Your task to perform on an android device: set an alarm Image 0: 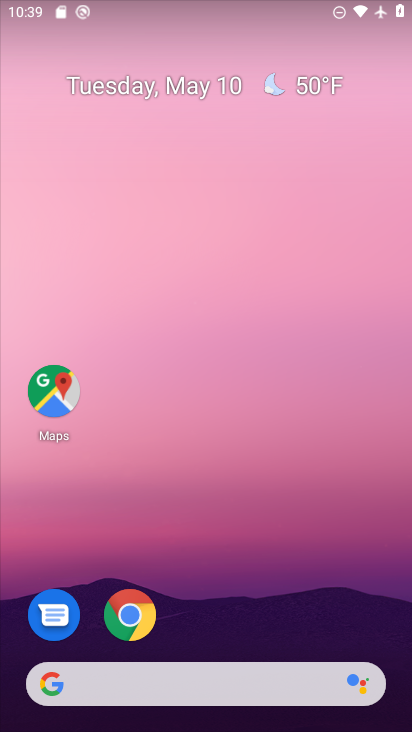
Step 0: drag from (385, 634) to (288, 80)
Your task to perform on an android device: set an alarm Image 1: 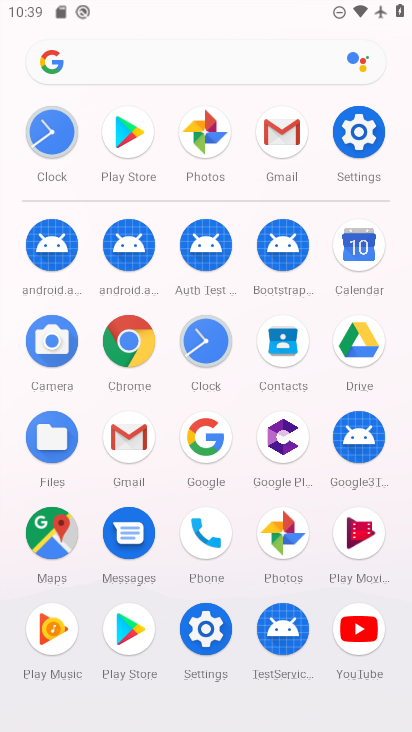
Step 1: click (208, 344)
Your task to perform on an android device: set an alarm Image 2: 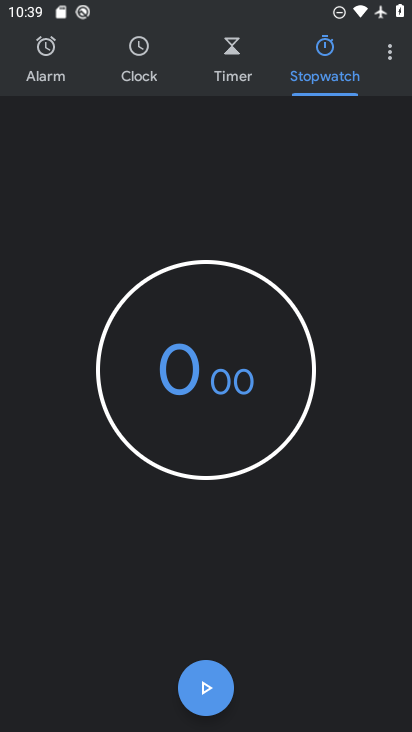
Step 2: click (46, 50)
Your task to perform on an android device: set an alarm Image 3: 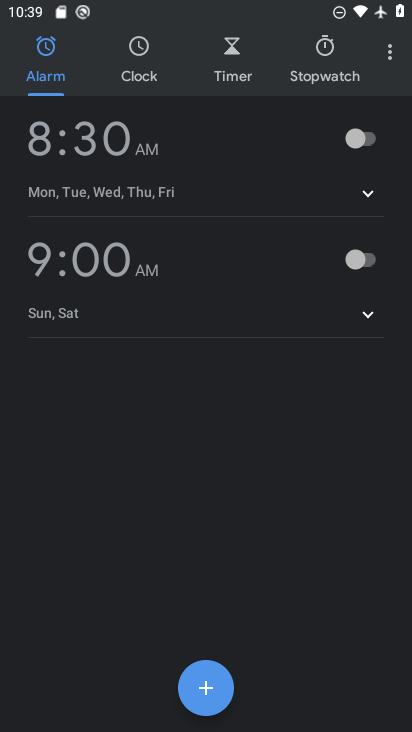
Step 3: click (89, 148)
Your task to perform on an android device: set an alarm Image 4: 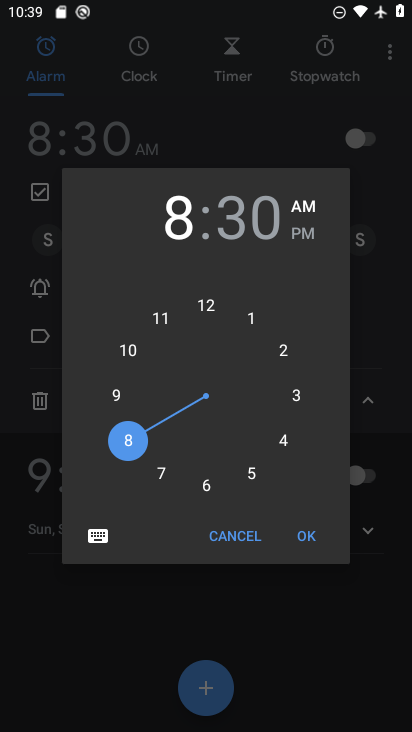
Step 4: click (205, 492)
Your task to perform on an android device: set an alarm Image 5: 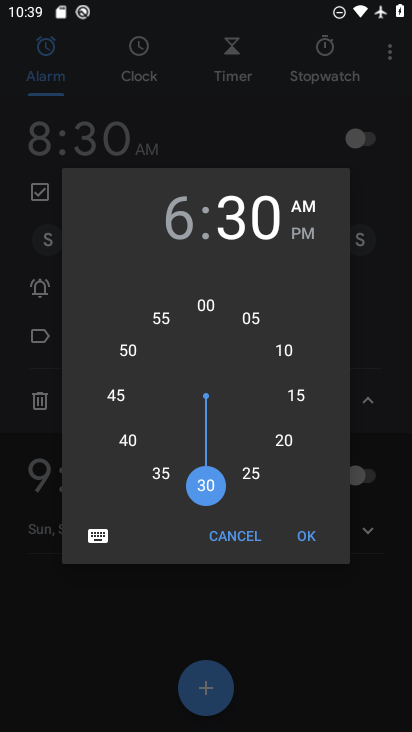
Step 5: click (299, 390)
Your task to perform on an android device: set an alarm Image 6: 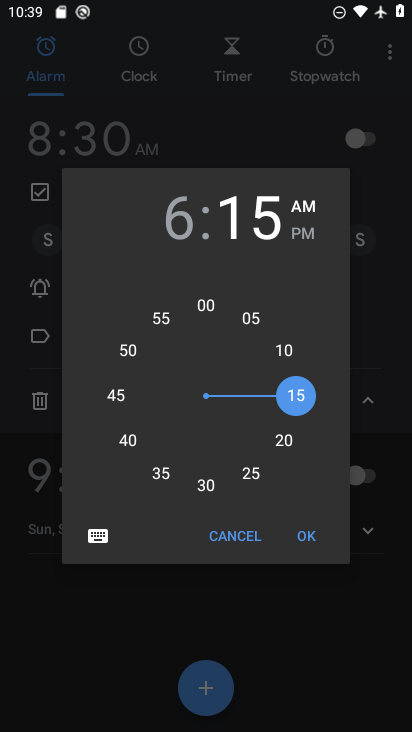
Step 6: click (308, 530)
Your task to perform on an android device: set an alarm Image 7: 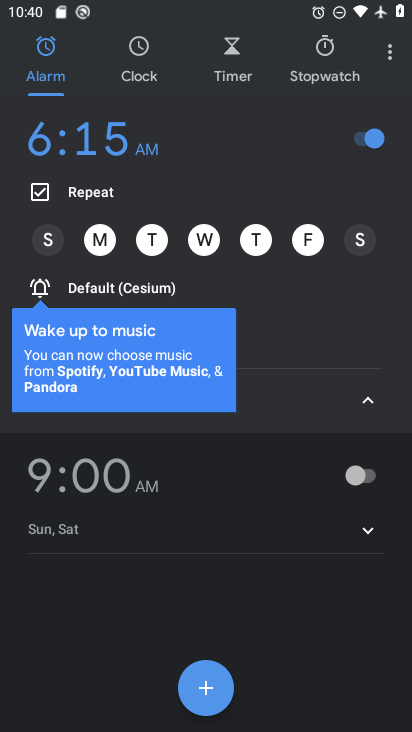
Step 7: click (368, 401)
Your task to perform on an android device: set an alarm Image 8: 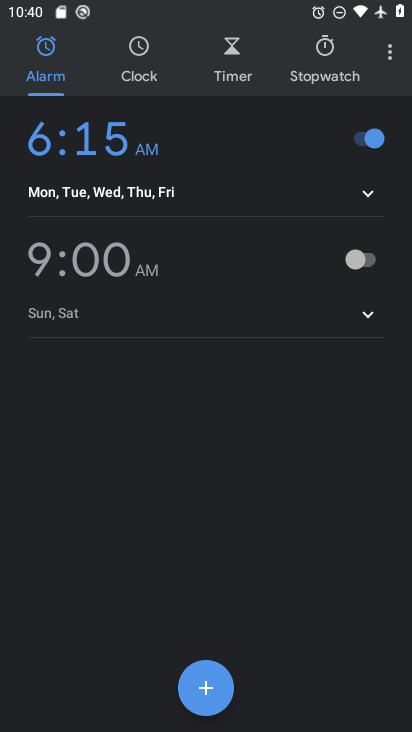
Step 8: task complete